Your task to perform on an android device: Clear the cart on bestbuy.com. Add "dell xps" to the cart on bestbuy.com, then select checkout. Image 0: 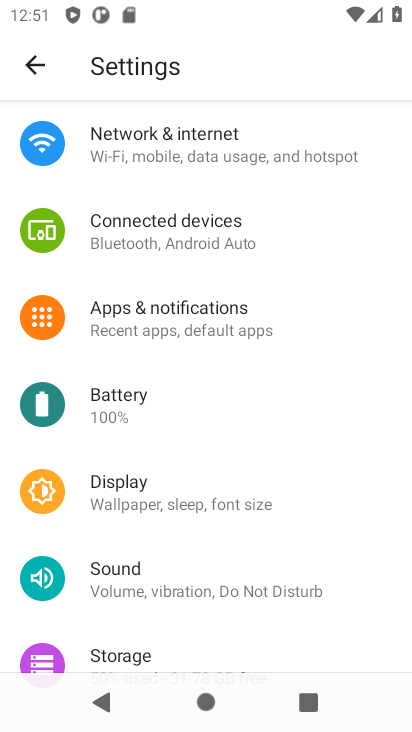
Step 0: press home button
Your task to perform on an android device: Clear the cart on bestbuy.com. Add "dell xps" to the cart on bestbuy.com, then select checkout. Image 1: 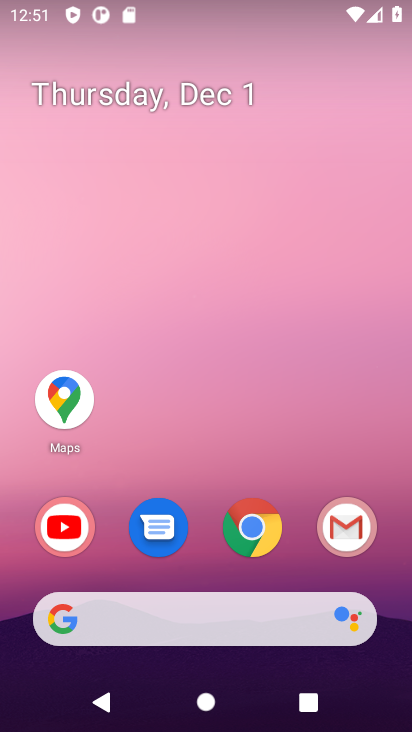
Step 1: click (263, 523)
Your task to perform on an android device: Clear the cart on bestbuy.com. Add "dell xps" to the cart on bestbuy.com, then select checkout. Image 2: 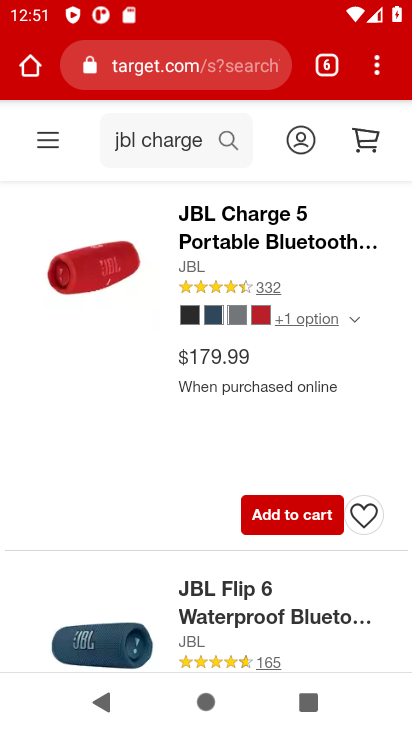
Step 2: click (197, 75)
Your task to perform on an android device: Clear the cart on bestbuy.com. Add "dell xps" to the cart on bestbuy.com, then select checkout. Image 3: 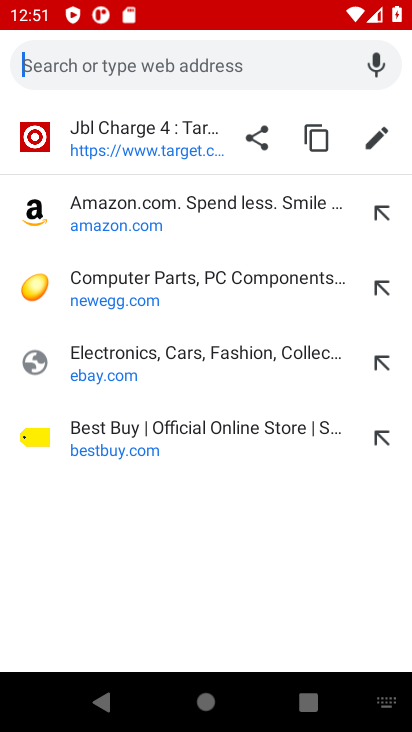
Step 3: click (94, 432)
Your task to perform on an android device: Clear the cart on bestbuy.com. Add "dell xps" to the cart on bestbuy.com, then select checkout. Image 4: 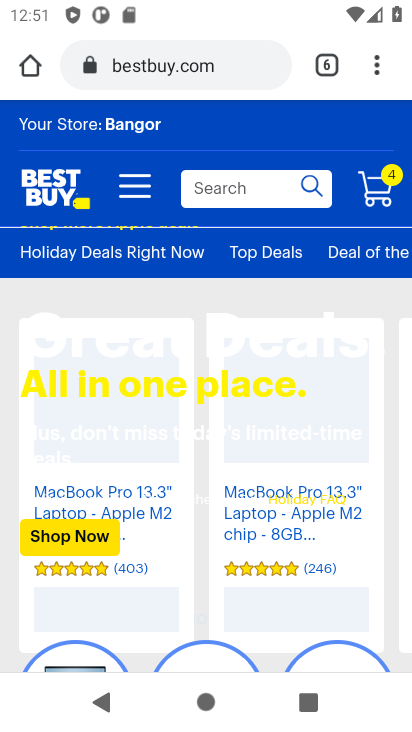
Step 4: click (374, 199)
Your task to perform on an android device: Clear the cart on bestbuy.com. Add "dell xps" to the cart on bestbuy.com, then select checkout. Image 5: 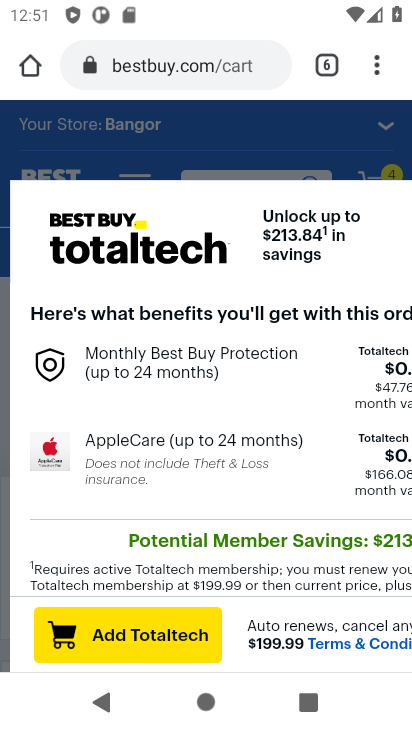
Step 5: click (258, 143)
Your task to perform on an android device: Clear the cart on bestbuy.com. Add "dell xps" to the cart on bestbuy.com, then select checkout. Image 6: 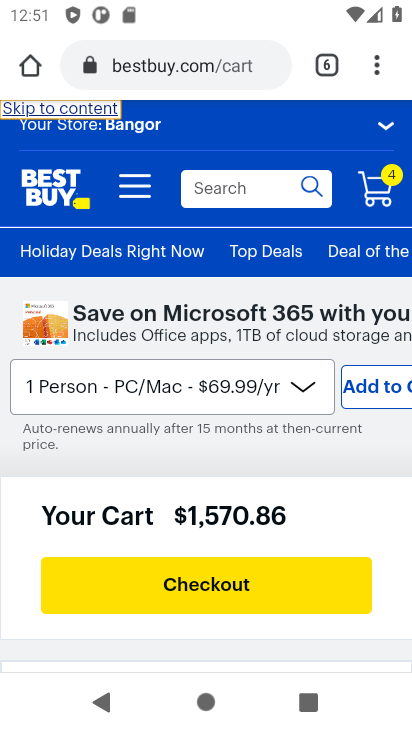
Step 6: drag from (250, 446) to (275, 122)
Your task to perform on an android device: Clear the cart on bestbuy.com. Add "dell xps" to the cart on bestbuy.com, then select checkout. Image 7: 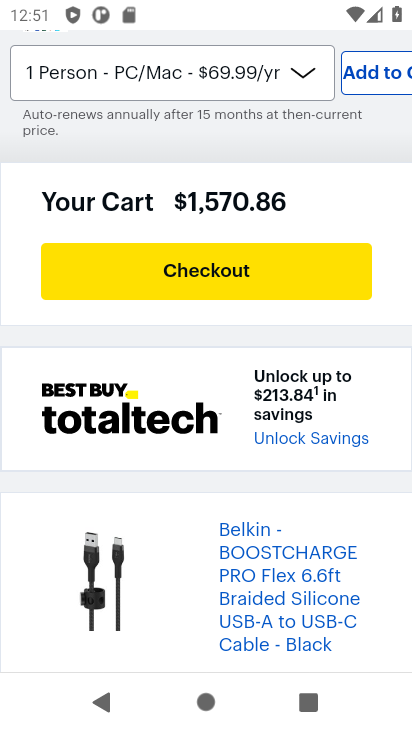
Step 7: drag from (203, 408) to (219, 162)
Your task to perform on an android device: Clear the cart on bestbuy.com. Add "dell xps" to the cart on bestbuy.com, then select checkout. Image 8: 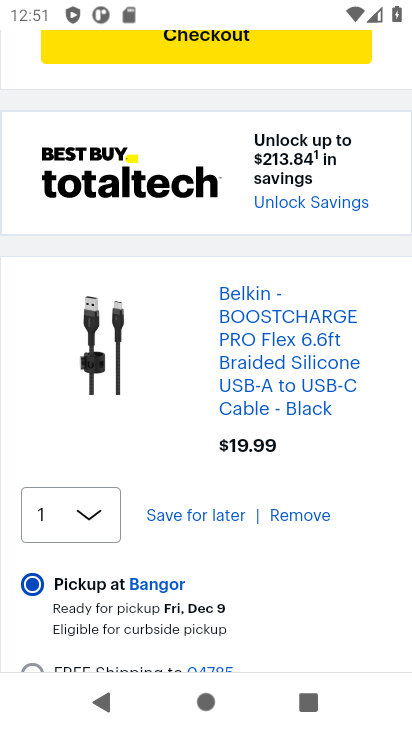
Step 8: click (287, 514)
Your task to perform on an android device: Clear the cart on bestbuy.com. Add "dell xps" to the cart on bestbuy.com, then select checkout. Image 9: 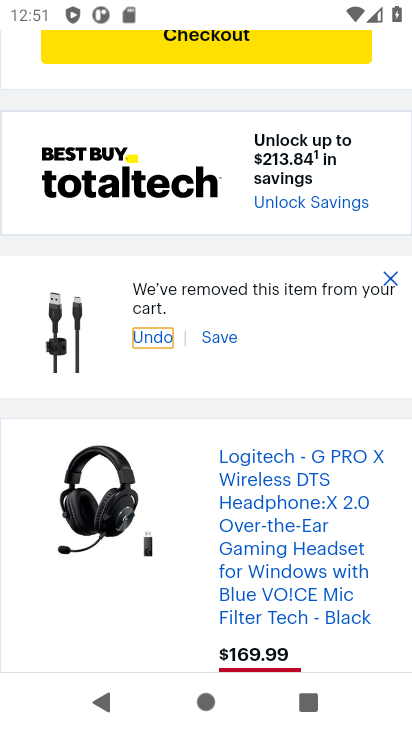
Step 9: drag from (288, 513) to (315, 224)
Your task to perform on an android device: Clear the cart on bestbuy.com. Add "dell xps" to the cart on bestbuy.com, then select checkout. Image 10: 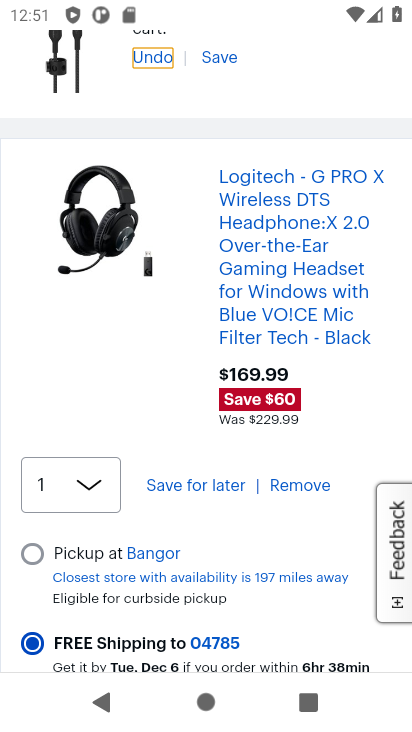
Step 10: click (295, 484)
Your task to perform on an android device: Clear the cart on bestbuy.com. Add "dell xps" to the cart on bestbuy.com, then select checkout. Image 11: 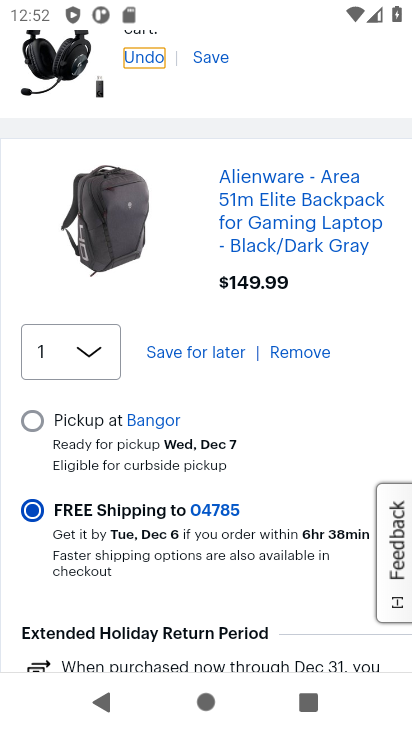
Step 11: click (301, 345)
Your task to perform on an android device: Clear the cart on bestbuy.com. Add "dell xps" to the cart on bestbuy.com, then select checkout. Image 12: 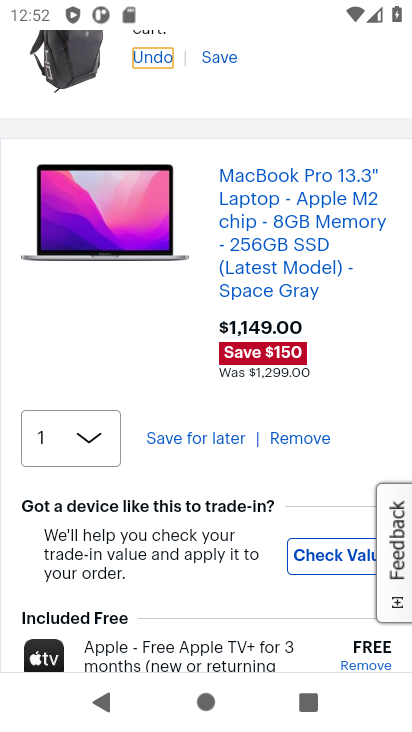
Step 12: click (309, 443)
Your task to perform on an android device: Clear the cart on bestbuy.com. Add "dell xps" to the cart on bestbuy.com, then select checkout. Image 13: 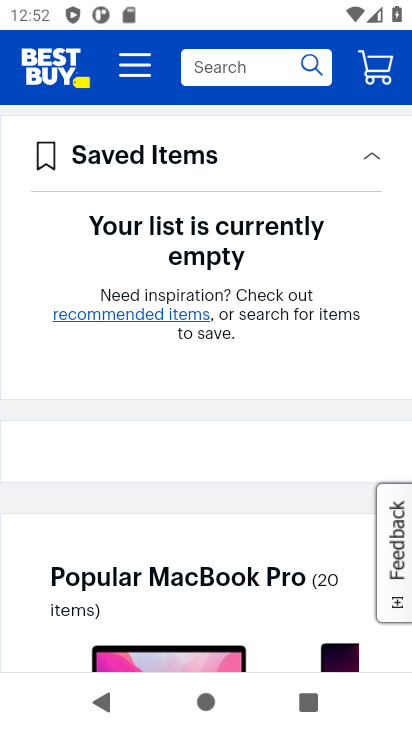
Step 13: click (255, 74)
Your task to perform on an android device: Clear the cart on bestbuy.com. Add "dell xps" to the cart on bestbuy.com, then select checkout. Image 14: 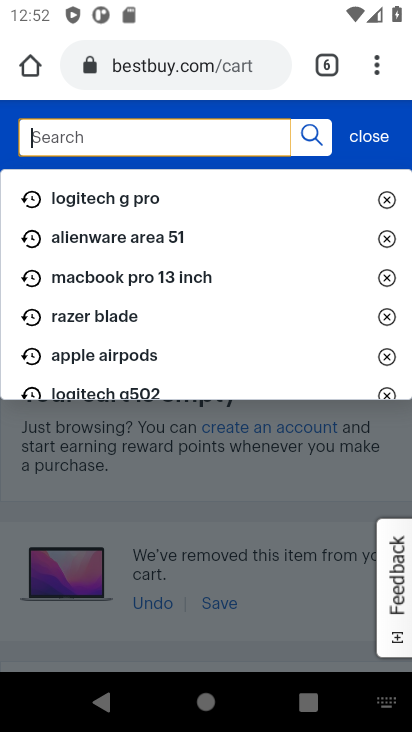
Step 14: type "dell xps"
Your task to perform on an android device: Clear the cart on bestbuy.com. Add "dell xps" to the cart on bestbuy.com, then select checkout. Image 15: 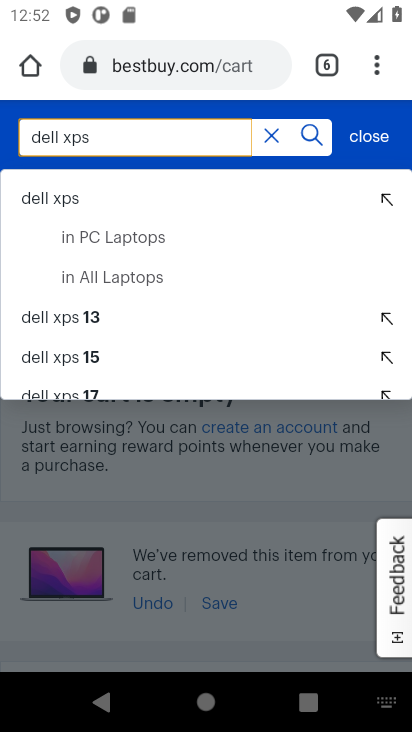
Step 15: click (51, 199)
Your task to perform on an android device: Clear the cart on bestbuy.com. Add "dell xps" to the cart on bestbuy.com, then select checkout. Image 16: 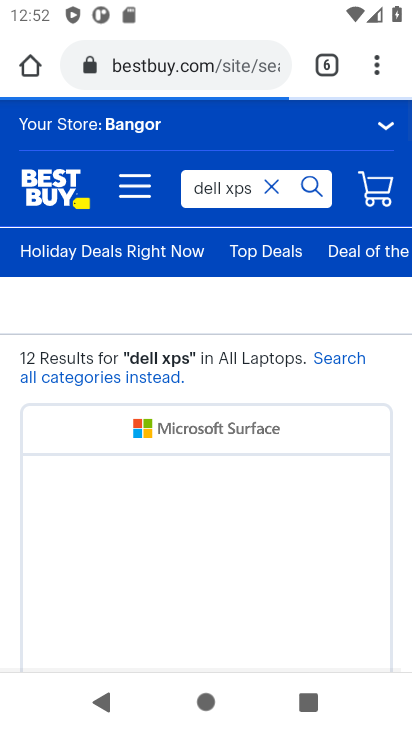
Step 16: drag from (165, 416) to (172, 144)
Your task to perform on an android device: Clear the cart on bestbuy.com. Add "dell xps" to the cart on bestbuy.com, then select checkout. Image 17: 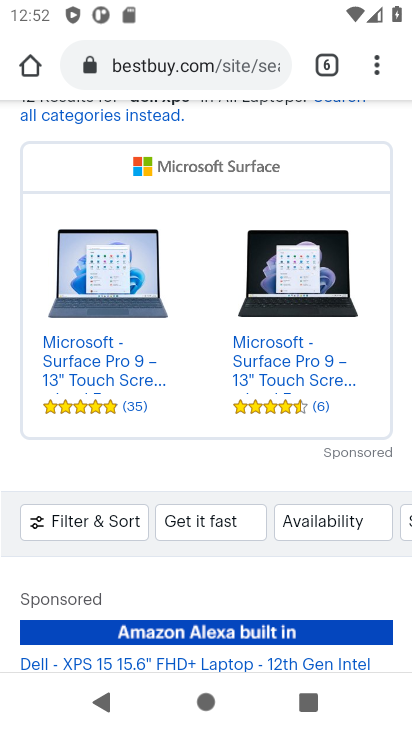
Step 17: drag from (183, 366) to (189, 140)
Your task to perform on an android device: Clear the cart on bestbuy.com. Add "dell xps" to the cart on bestbuy.com, then select checkout. Image 18: 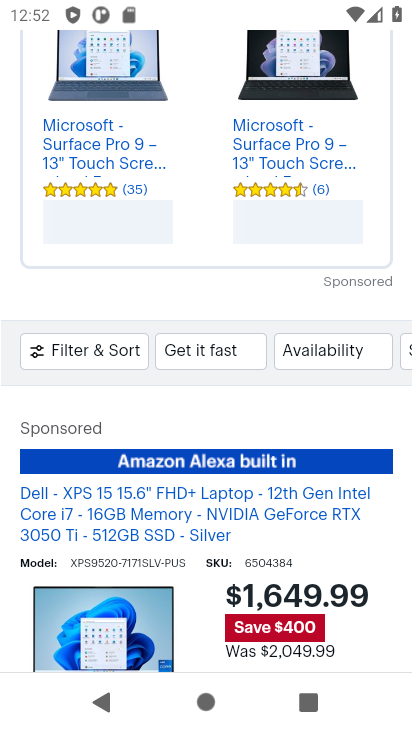
Step 18: drag from (192, 382) to (201, 136)
Your task to perform on an android device: Clear the cart on bestbuy.com. Add "dell xps" to the cart on bestbuy.com, then select checkout. Image 19: 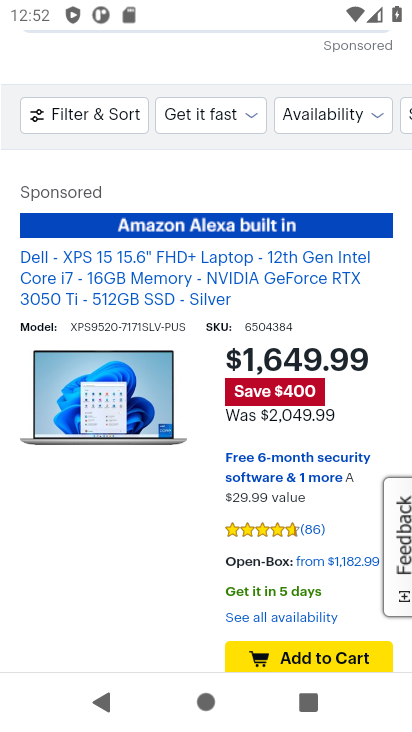
Step 19: click (278, 655)
Your task to perform on an android device: Clear the cart on bestbuy.com. Add "dell xps" to the cart on bestbuy.com, then select checkout. Image 20: 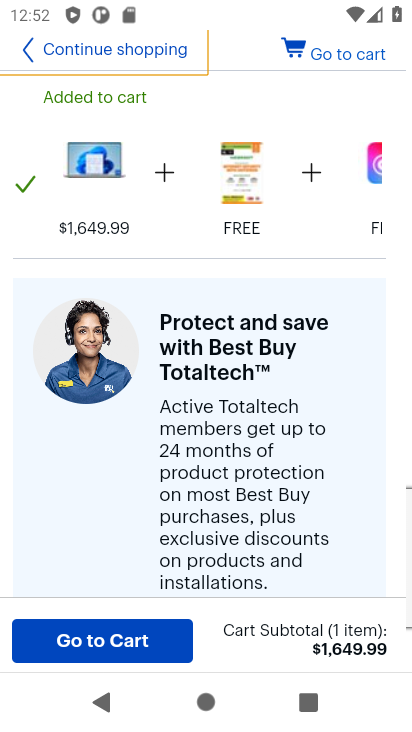
Step 20: click (328, 61)
Your task to perform on an android device: Clear the cart on bestbuy.com. Add "dell xps" to the cart on bestbuy.com, then select checkout. Image 21: 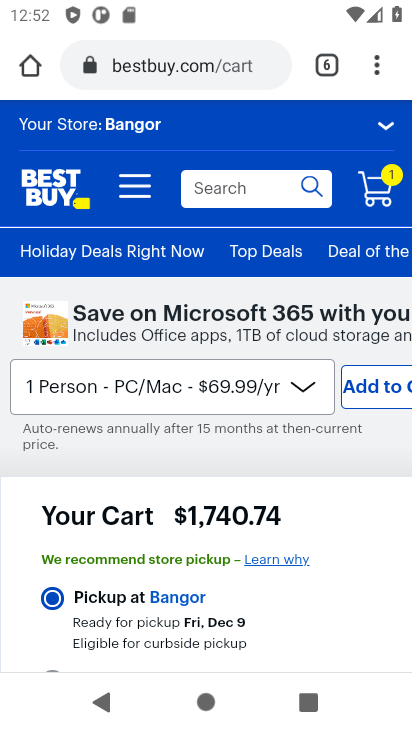
Step 21: drag from (224, 504) to (220, 214)
Your task to perform on an android device: Clear the cart on bestbuy.com. Add "dell xps" to the cart on bestbuy.com, then select checkout. Image 22: 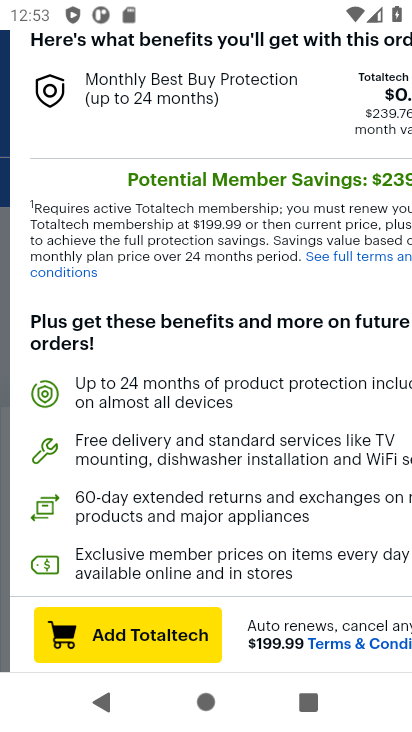
Step 22: click (246, 83)
Your task to perform on an android device: Clear the cart on bestbuy.com. Add "dell xps" to the cart on bestbuy.com, then select checkout. Image 23: 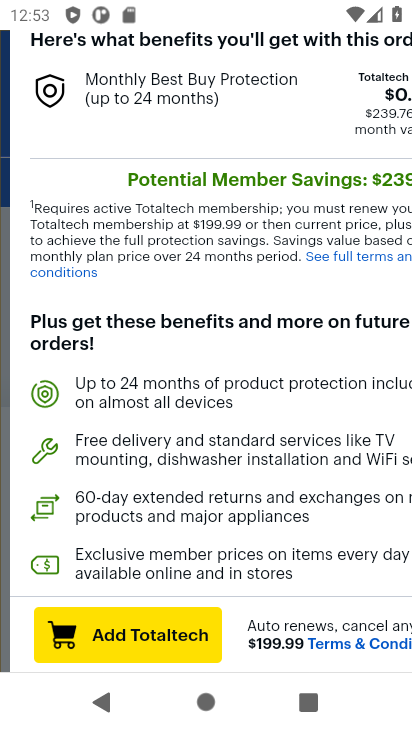
Step 23: drag from (194, 222) to (174, 461)
Your task to perform on an android device: Clear the cart on bestbuy.com. Add "dell xps" to the cart on bestbuy.com, then select checkout. Image 24: 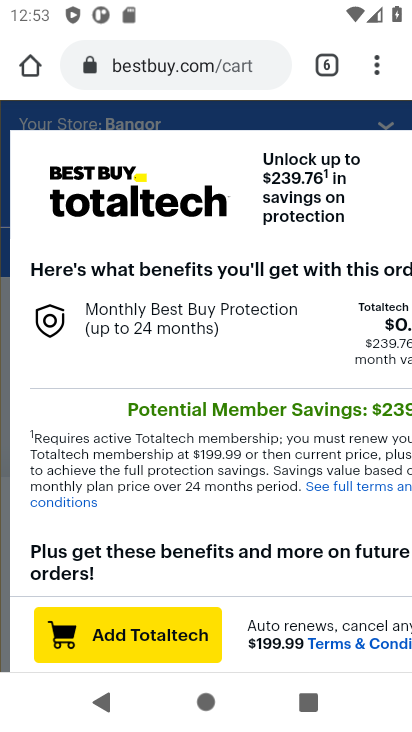
Step 24: drag from (235, 165) to (217, 329)
Your task to perform on an android device: Clear the cart on bestbuy.com. Add "dell xps" to the cart on bestbuy.com, then select checkout. Image 25: 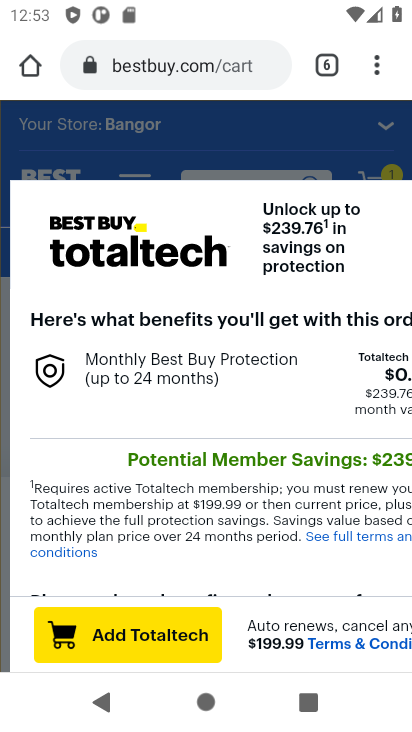
Step 25: click (236, 142)
Your task to perform on an android device: Clear the cart on bestbuy.com. Add "dell xps" to the cart on bestbuy.com, then select checkout. Image 26: 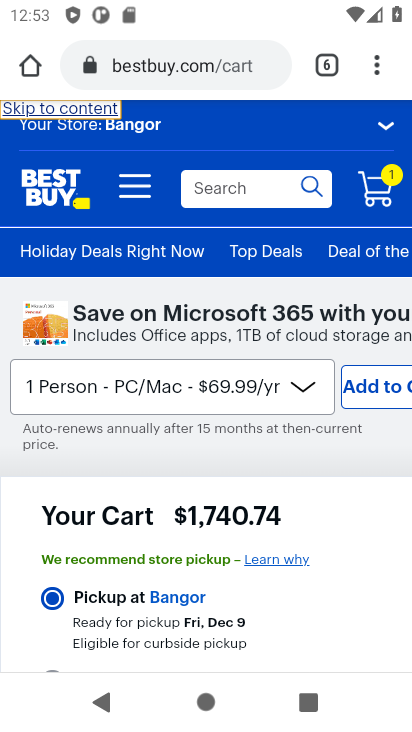
Step 26: drag from (207, 401) to (207, 183)
Your task to perform on an android device: Clear the cart on bestbuy.com. Add "dell xps" to the cart on bestbuy.com, then select checkout. Image 27: 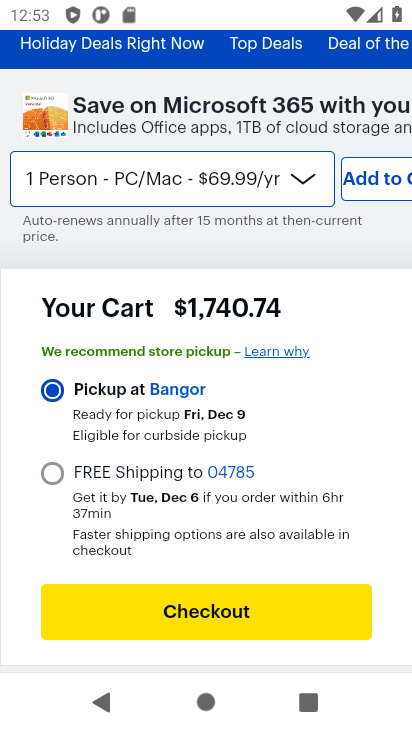
Step 27: click (164, 608)
Your task to perform on an android device: Clear the cart on bestbuy.com. Add "dell xps" to the cart on bestbuy.com, then select checkout. Image 28: 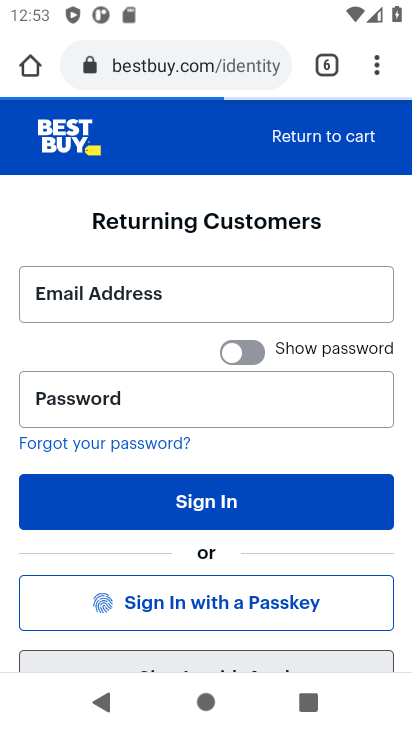
Step 28: task complete